Your task to perform on an android device: Clear the shopping cart on newegg. Add "macbook" to the cart on newegg Image 0: 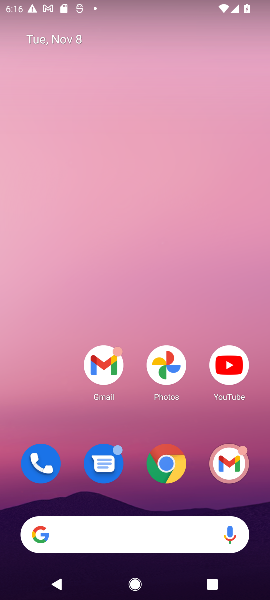
Step 0: click (181, 453)
Your task to perform on an android device: Clear the shopping cart on newegg. Add "macbook" to the cart on newegg Image 1: 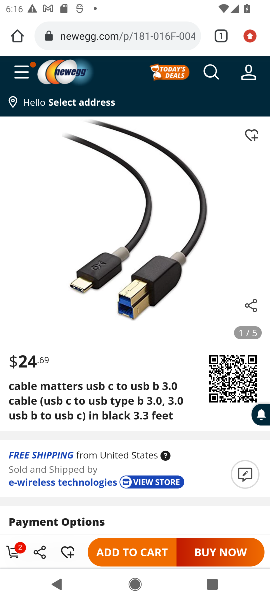
Step 1: click (215, 69)
Your task to perform on an android device: Clear the shopping cart on newegg. Add "macbook" to the cart on newegg Image 2: 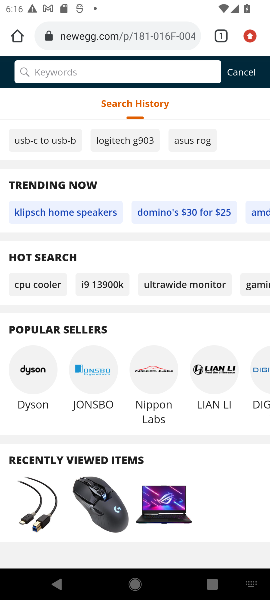
Step 2: type "macbook"
Your task to perform on an android device: Clear the shopping cart on newegg. Add "macbook" to the cart on newegg Image 3: 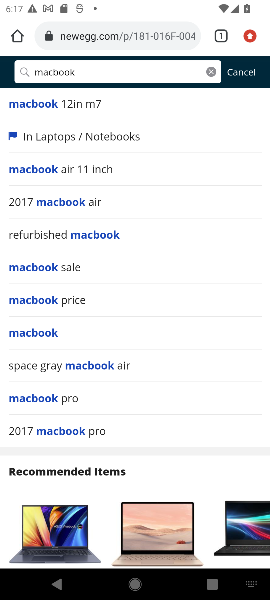
Step 3: click (125, 399)
Your task to perform on an android device: Clear the shopping cart on newegg. Add "macbook" to the cart on newegg Image 4: 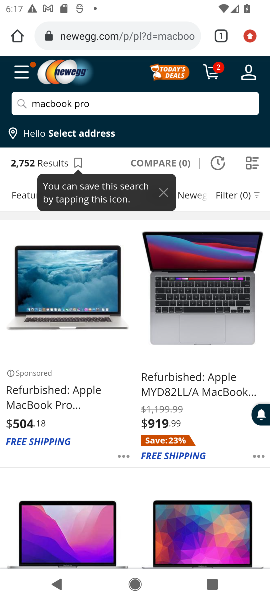
Step 4: click (30, 318)
Your task to perform on an android device: Clear the shopping cart on newegg. Add "macbook" to the cart on newegg Image 5: 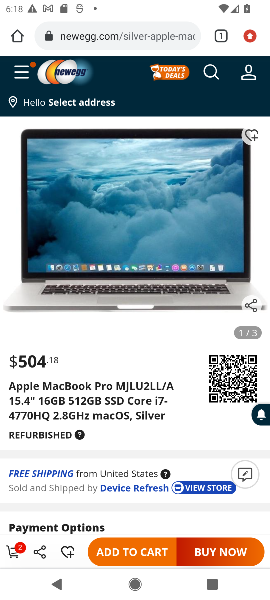
Step 5: click (138, 549)
Your task to perform on an android device: Clear the shopping cart on newegg. Add "macbook" to the cart on newegg Image 6: 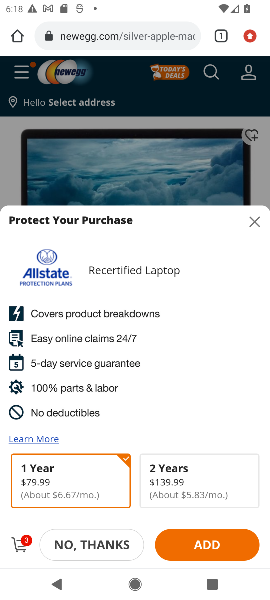
Step 6: task complete